Your task to perform on an android device: Open accessibility settings Image 0: 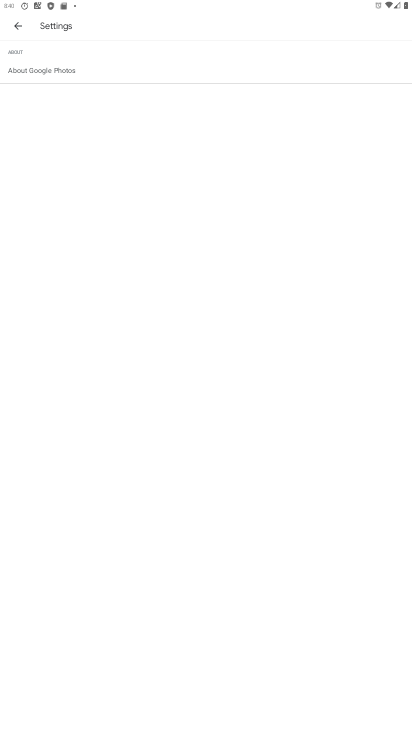
Step 0: press home button
Your task to perform on an android device: Open accessibility settings Image 1: 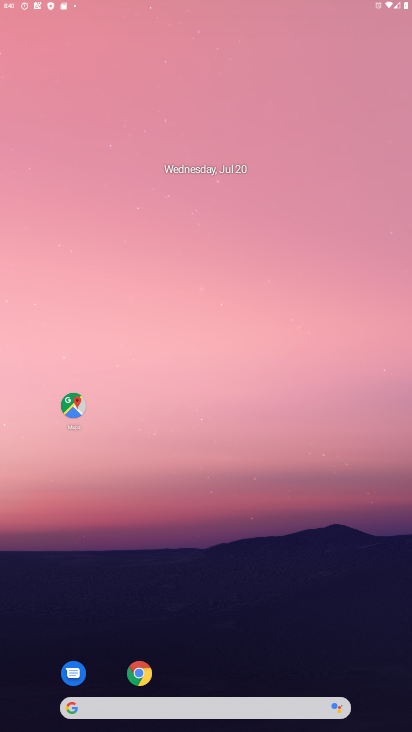
Step 1: drag from (212, 706) to (242, 91)
Your task to perform on an android device: Open accessibility settings Image 2: 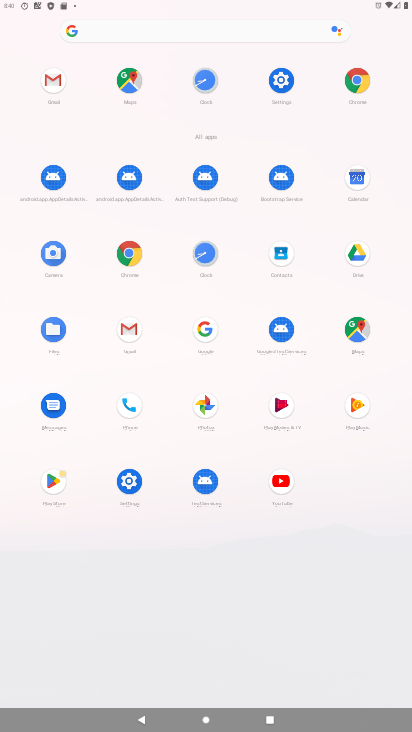
Step 2: click (277, 80)
Your task to perform on an android device: Open accessibility settings Image 3: 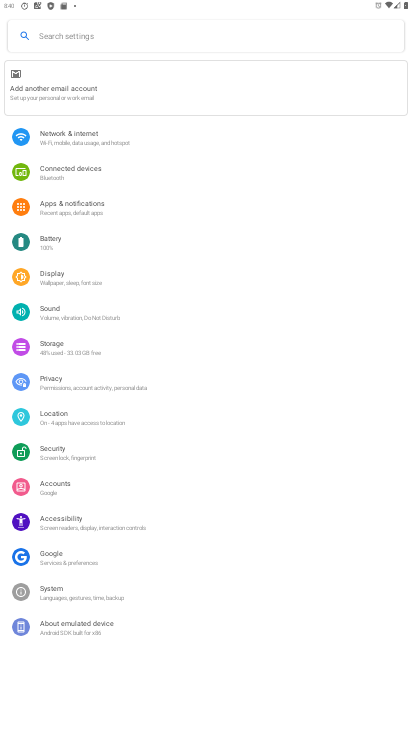
Step 3: click (82, 523)
Your task to perform on an android device: Open accessibility settings Image 4: 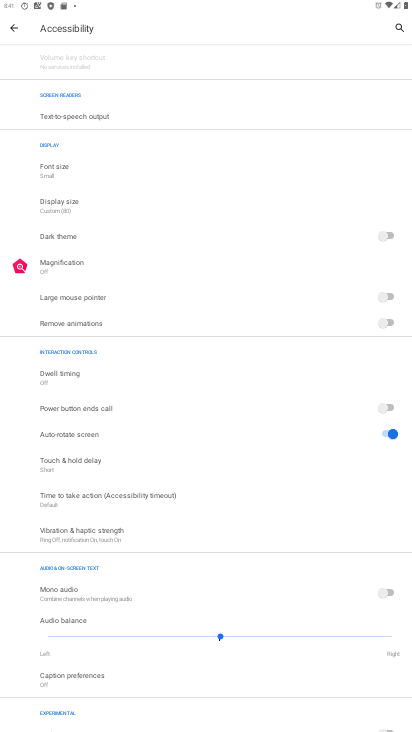
Step 4: task complete